Your task to perform on an android device: change keyboard looks Image 0: 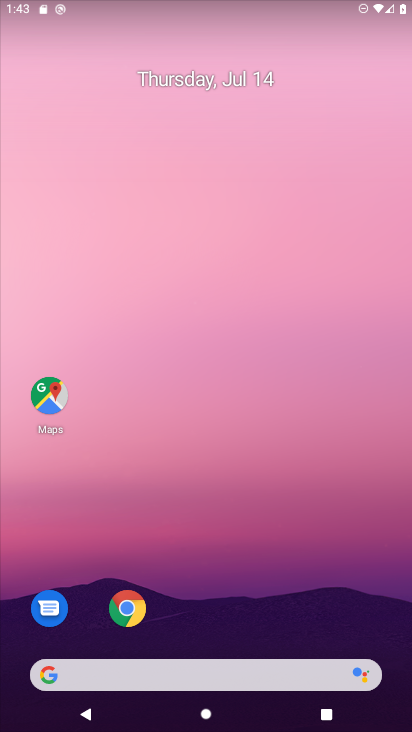
Step 0: drag from (393, 641) to (312, 106)
Your task to perform on an android device: change keyboard looks Image 1: 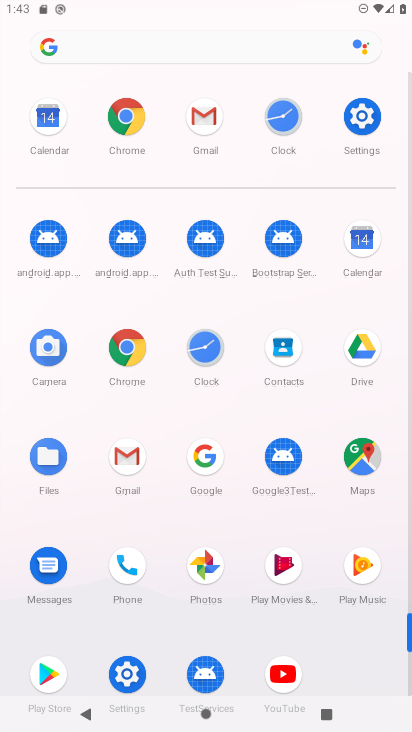
Step 1: click (126, 673)
Your task to perform on an android device: change keyboard looks Image 2: 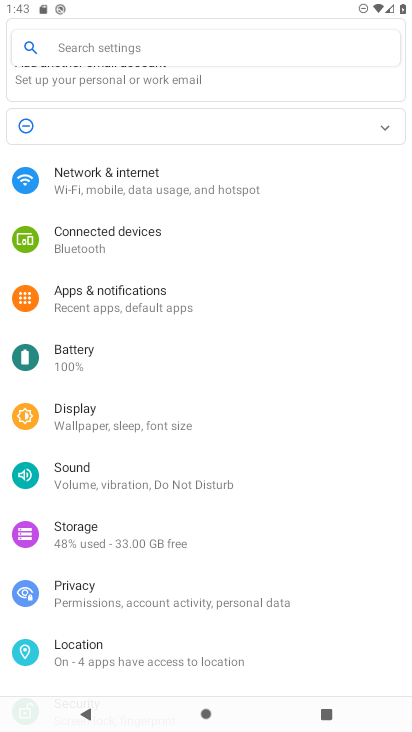
Step 2: drag from (325, 643) to (303, 226)
Your task to perform on an android device: change keyboard looks Image 3: 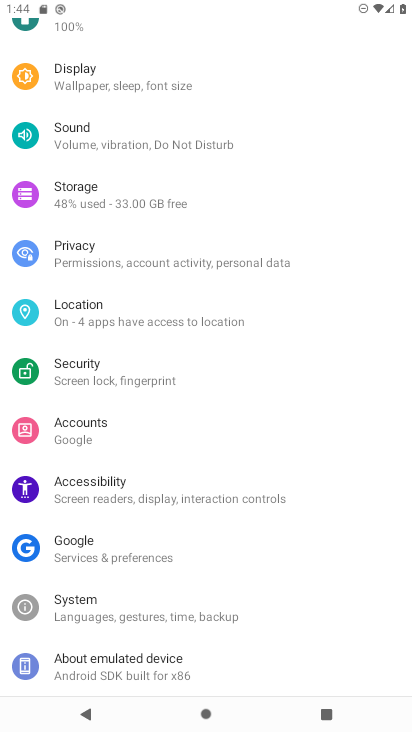
Step 3: click (61, 597)
Your task to perform on an android device: change keyboard looks Image 4: 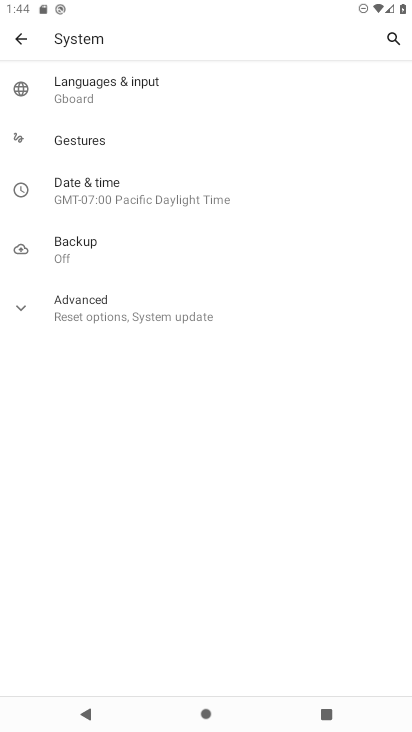
Step 4: click (82, 86)
Your task to perform on an android device: change keyboard looks Image 5: 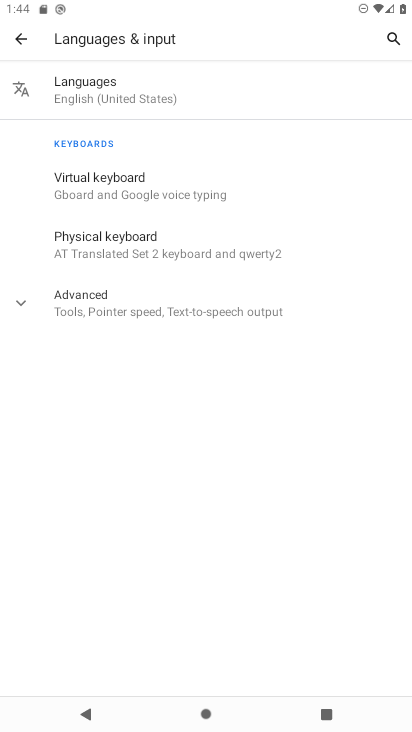
Step 5: click (100, 253)
Your task to perform on an android device: change keyboard looks Image 6: 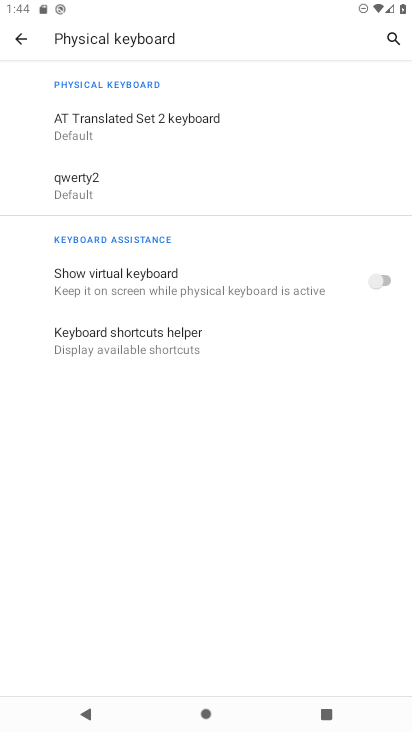
Step 6: click (79, 187)
Your task to perform on an android device: change keyboard looks Image 7: 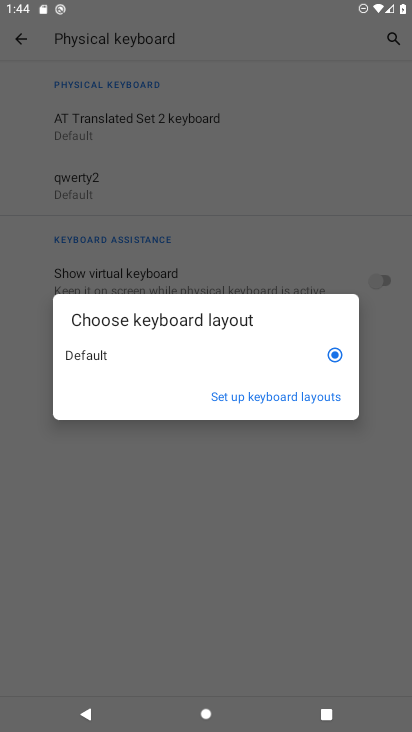
Step 7: click (291, 399)
Your task to perform on an android device: change keyboard looks Image 8: 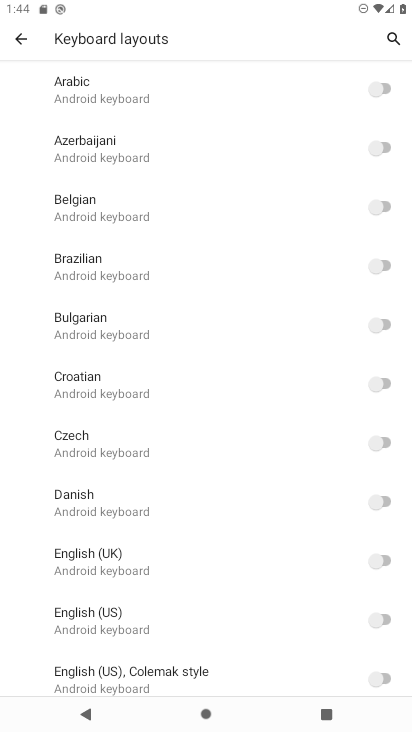
Step 8: drag from (289, 597) to (274, 255)
Your task to perform on an android device: change keyboard looks Image 9: 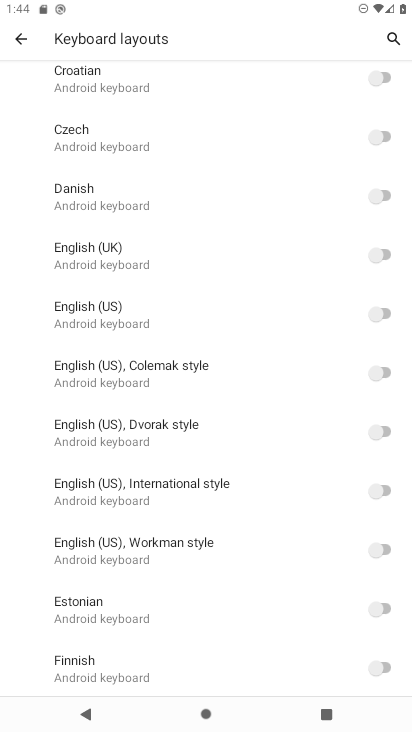
Step 9: click (380, 367)
Your task to perform on an android device: change keyboard looks Image 10: 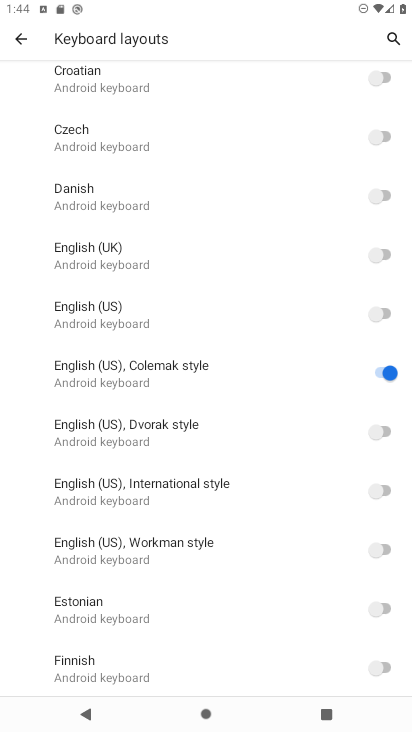
Step 10: task complete